Your task to perform on an android device: create a new album in the google photos Image 0: 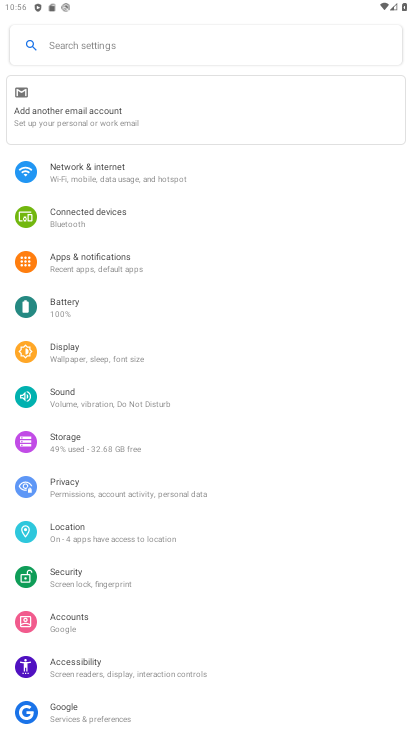
Step 0: press home button
Your task to perform on an android device: create a new album in the google photos Image 1: 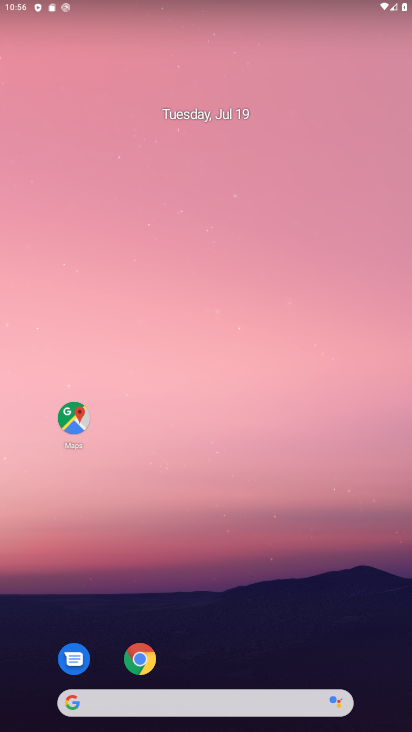
Step 1: drag from (260, 567) to (199, 72)
Your task to perform on an android device: create a new album in the google photos Image 2: 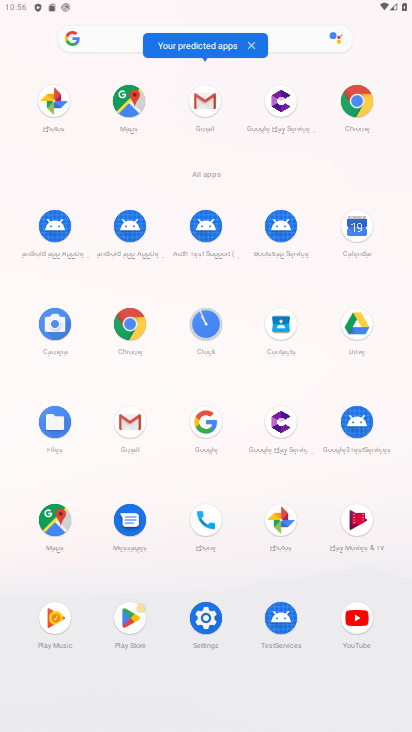
Step 2: click (290, 521)
Your task to perform on an android device: create a new album in the google photos Image 3: 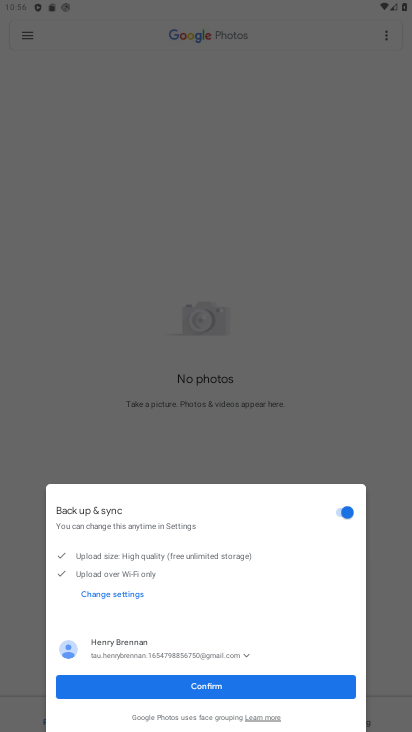
Step 3: click (243, 688)
Your task to perform on an android device: create a new album in the google photos Image 4: 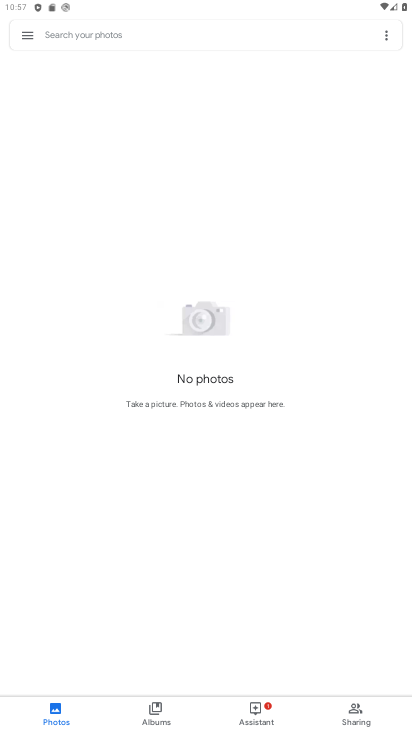
Step 4: click (29, 36)
Your task to perform on an android device: create a new album in the google photos Image 5: 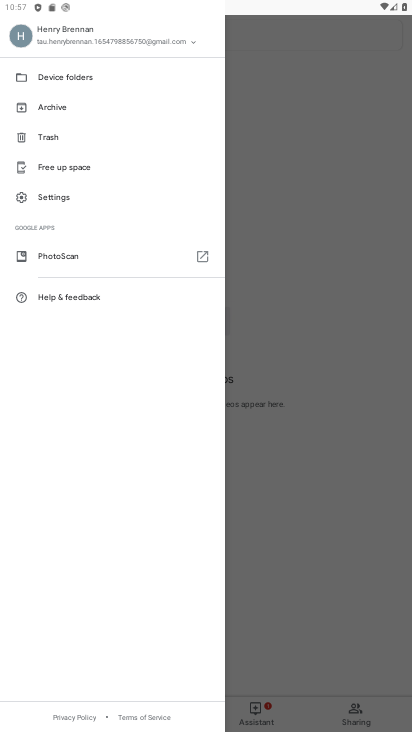
Step 5: task complete